Your task to perform on an android device: Open calendar and show me the first week of next month Image 0: 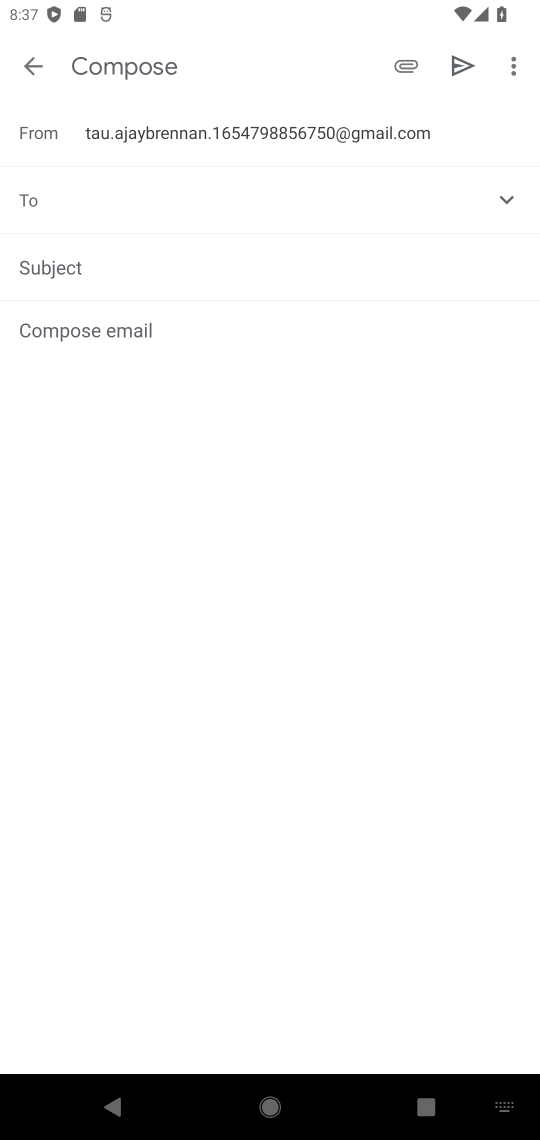
Step 0: press home button
Your task to perform on an android device: Open calendar and show me the first week of next month Image 1: 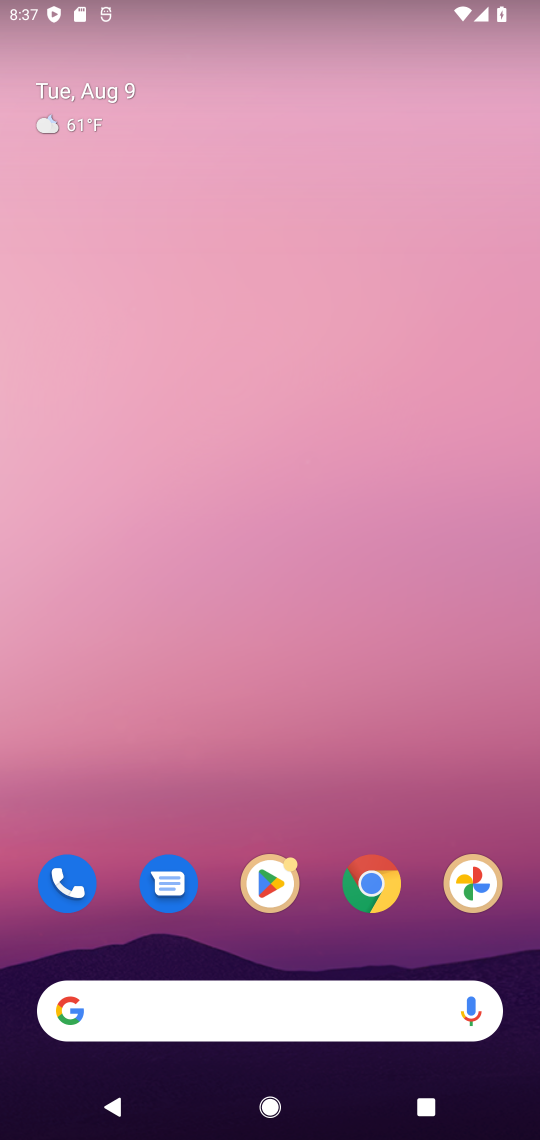
Step 1: drag from (340, 769) to (370, 88)
Your task to perform on an android device: Open calendar and show me the first week of next month Image 2: 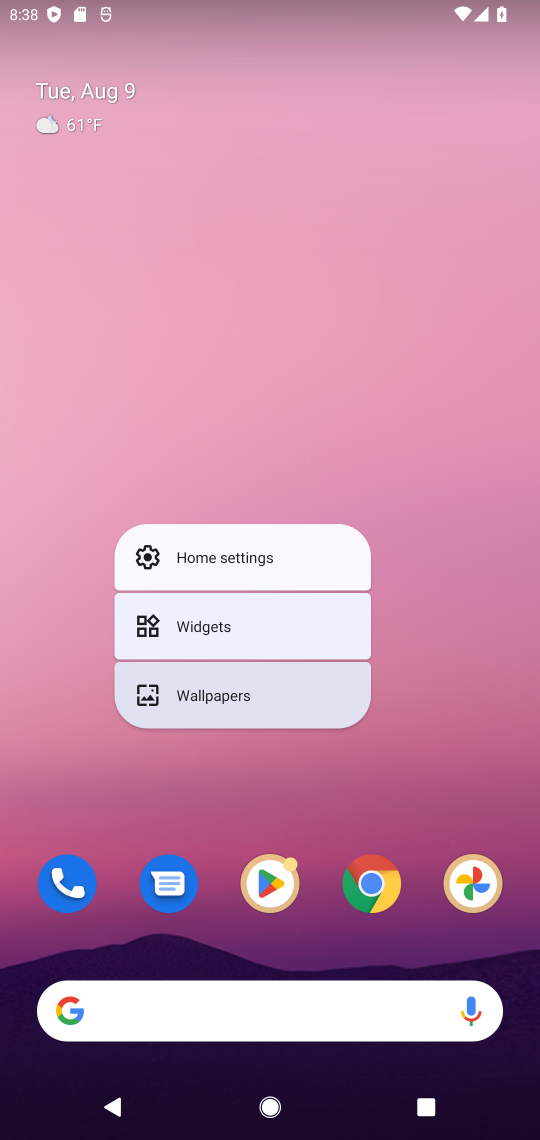
Step 2: click (467, 719)
Your task to perform on an android device: Open calendar and show me the first week of next month Image 3: 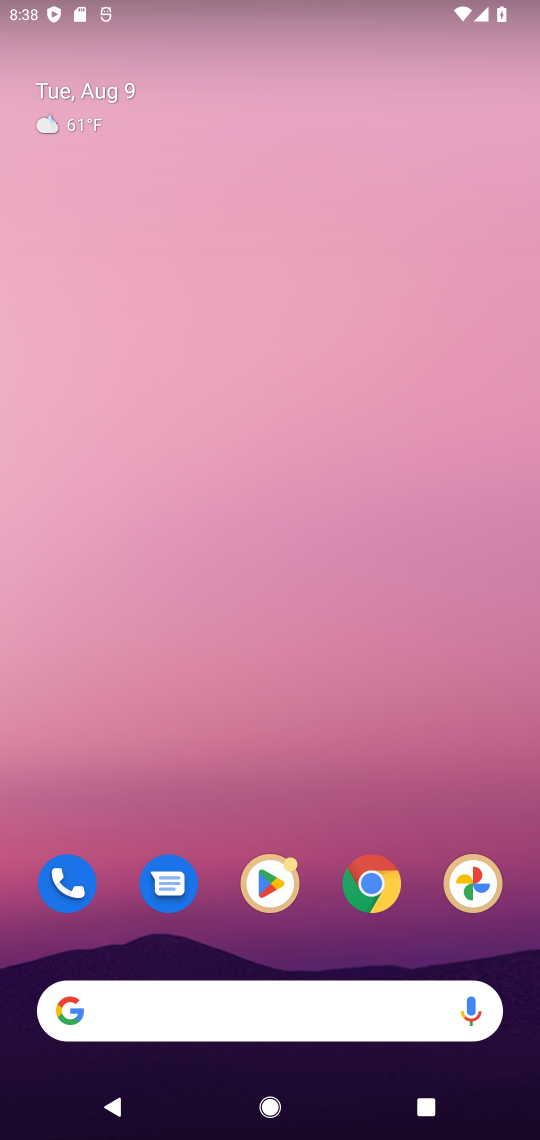
Step 3: drag from (287, 781) to (343, 65)
Your task to perform on an android device: Open calendar and show me the first week of next month Image 4: 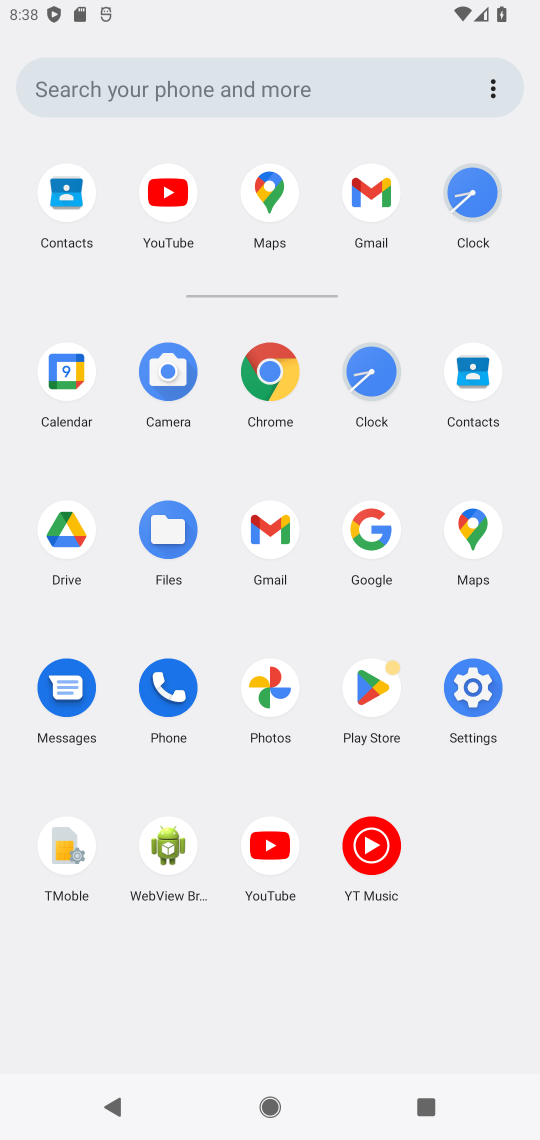
Step 4: click (66, 367)
Your task to perform on an android device: Open calendar and show me the first week of next month Image 5: 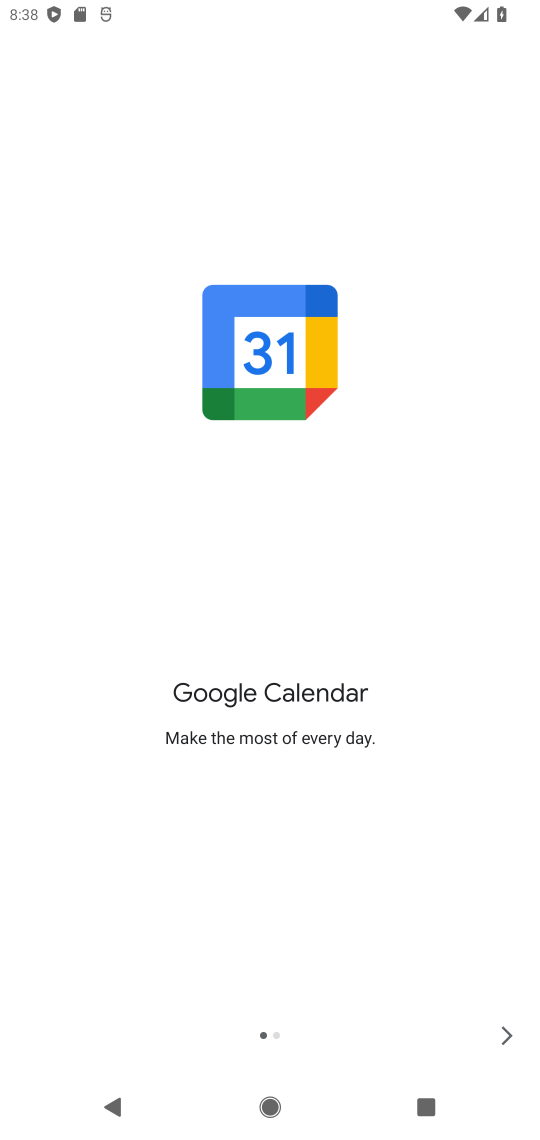
Step 5: click (496, 1025)
Your task to perform on an android device: Open calendar and show me the first week of next month Image 6: 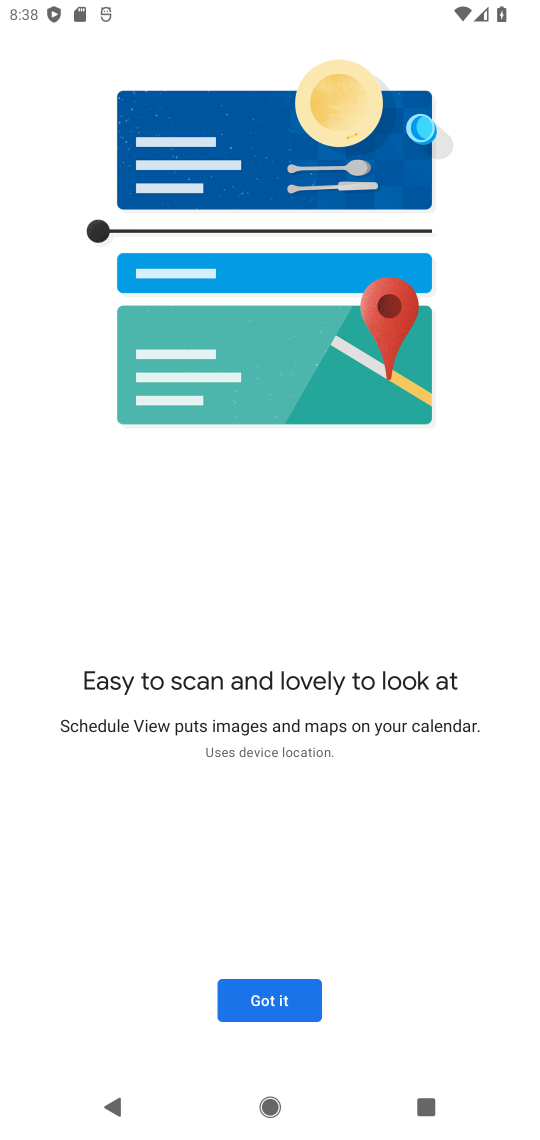
Step 6: click (258, 993)
Your task to perform on an android device: Open calendar and show me the first week of next month Image 7: 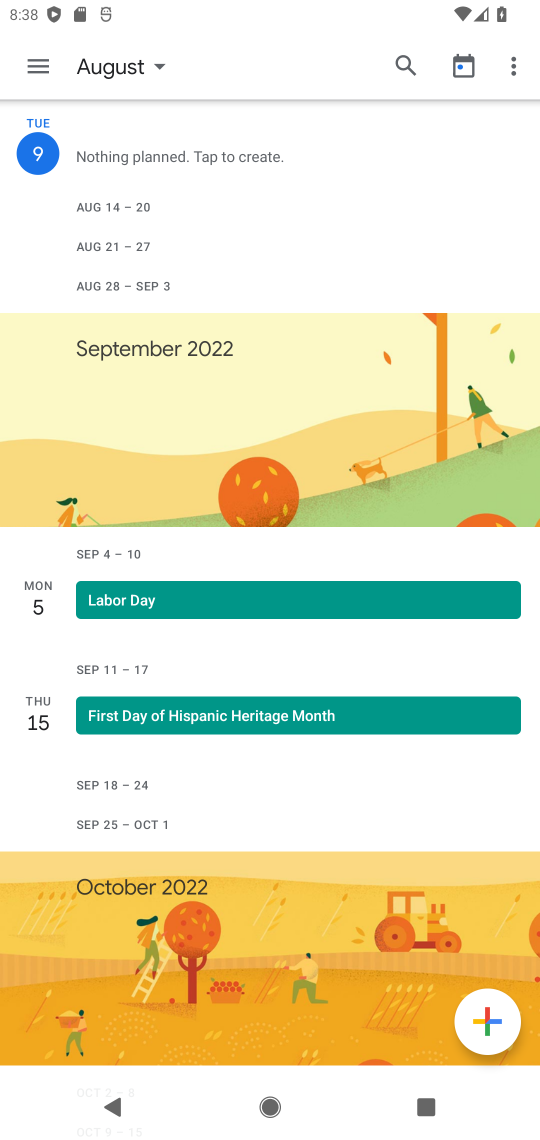
Step 7: click (118, 63)
Your task to perform on an android device: Open calendar and show me the first week of next month Image 8: 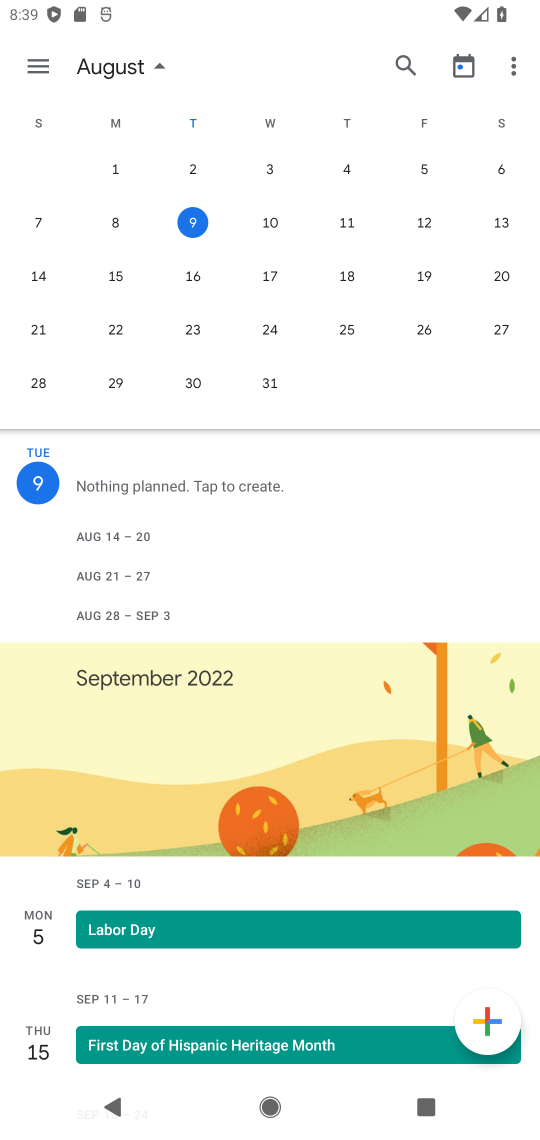
Step 8: click (125, 62)
Your task to perform on an android device: Open calendar and show me the first week of next month Image 9: 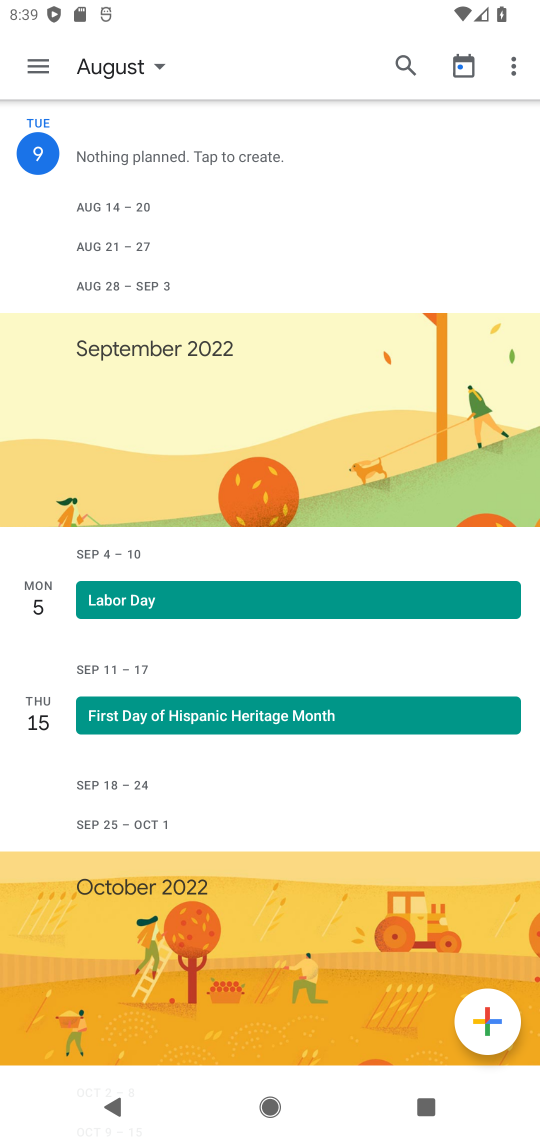
Step 9: click (101, 67)
Your task to perform on an android device: Open calendar and show me the first week of next month Image 10: 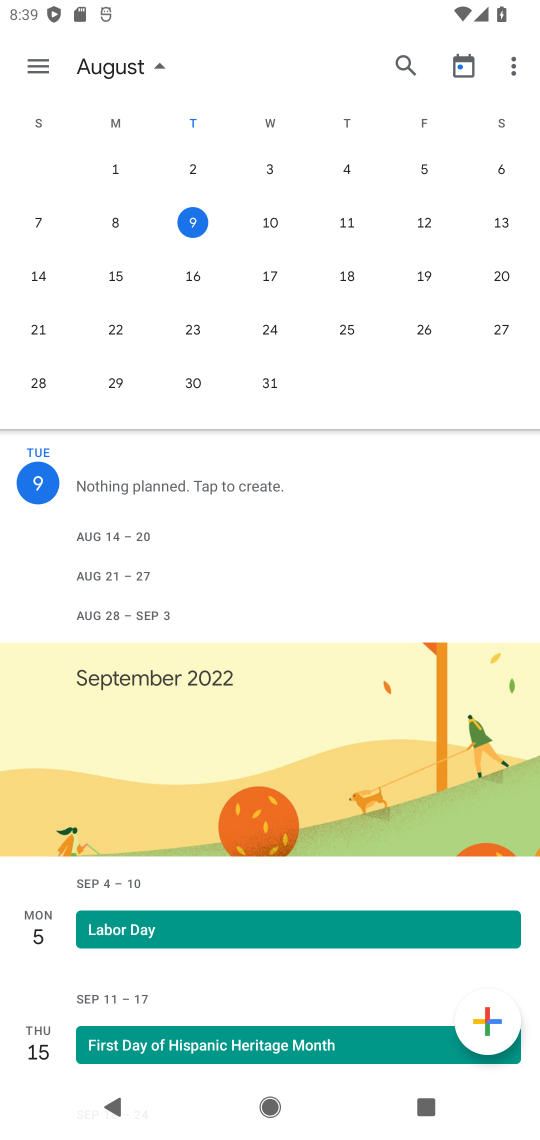
Step 10: drag from (494, 284) to (93, 299)
Your task to perform on an android device: Open calendar and show me the first week of next month Image 11: 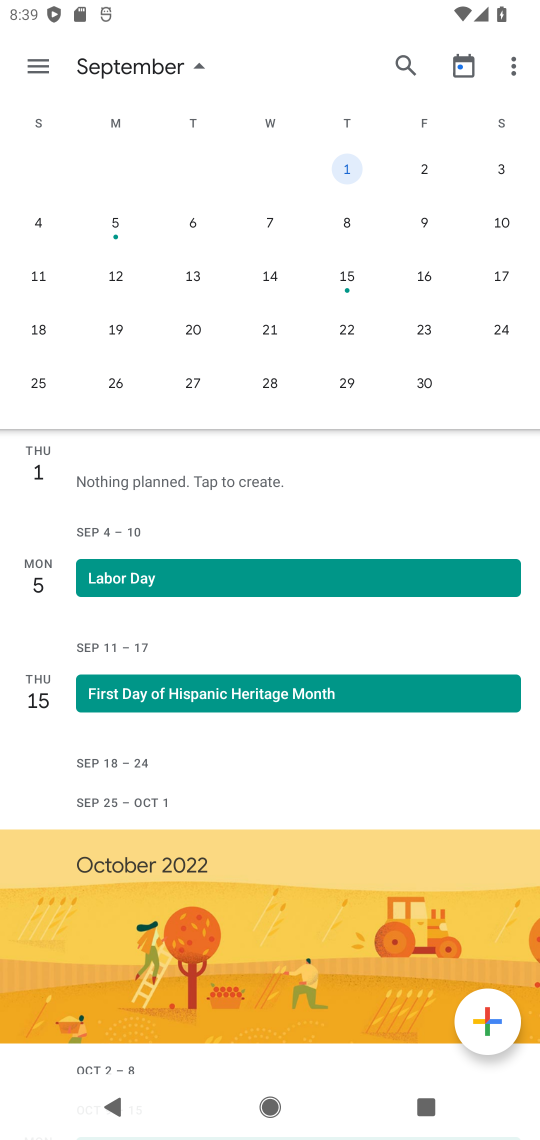
Step 11: click (189, 213)
Your task to perform on an android device: Open calendar and show me the first week of next month Image 12: 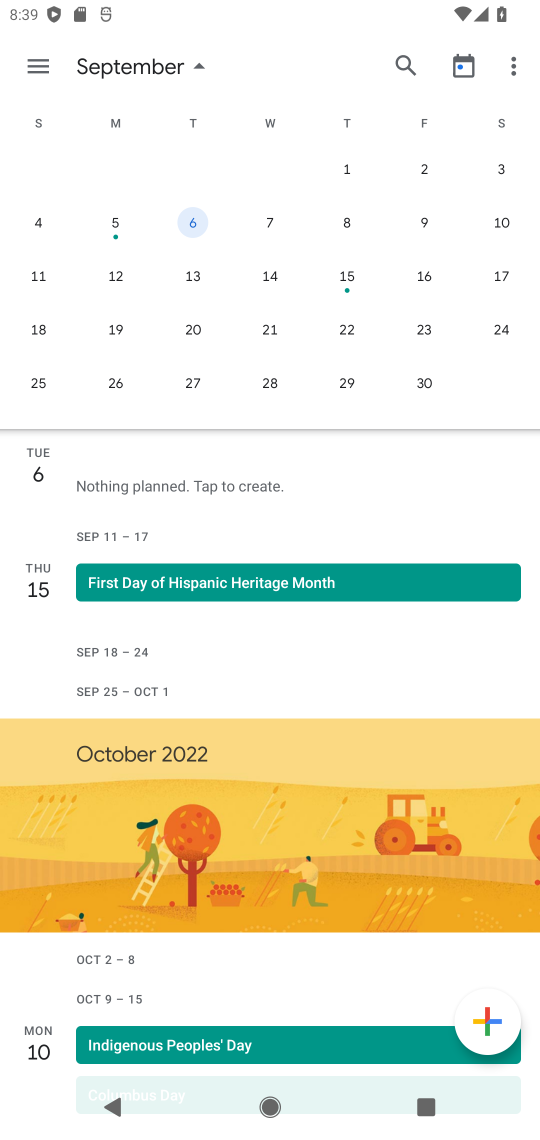
Step 12: click (36, 61)
Your task to perform on an android device: Open calendar and show me the first week of next month Image 13: 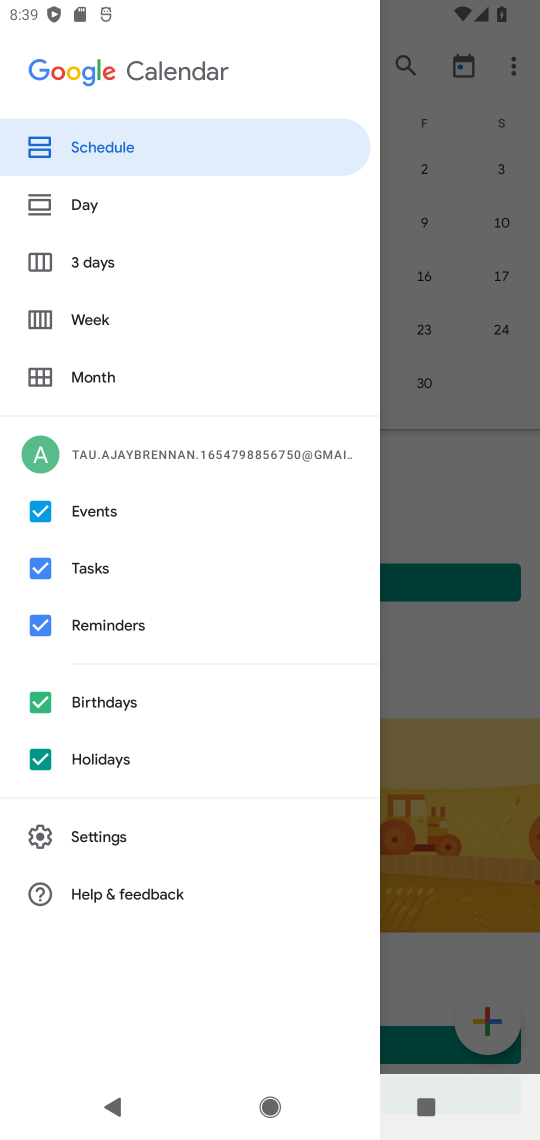
Step 13: click (74, 325)
Your task to perform on an android device: Open calendar and show me the first week of next month Image 14: 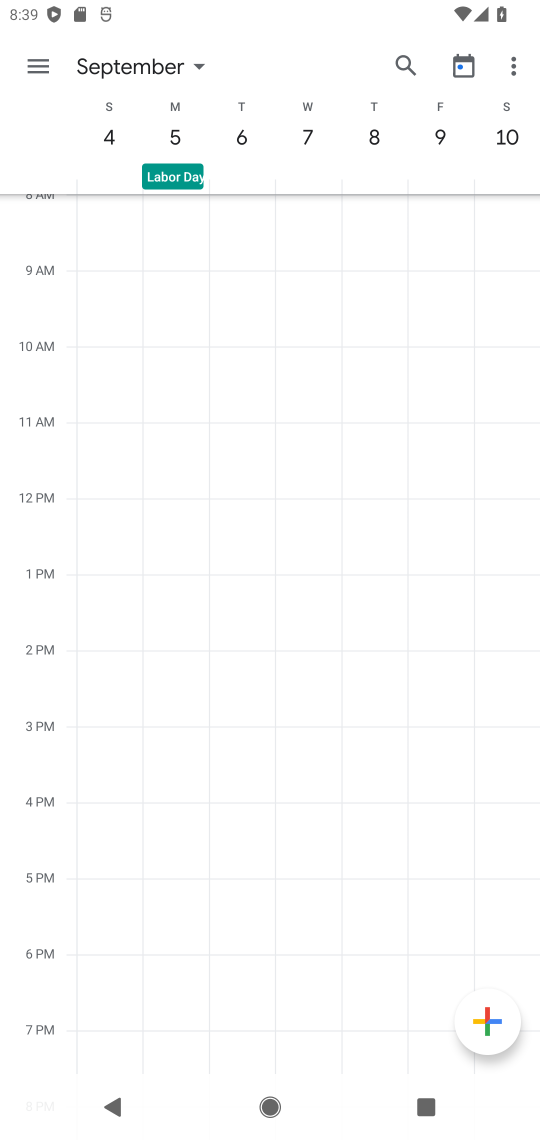
Step 14: task complete